Your task to perform on an android device: Open Yahoo.com Image 0: 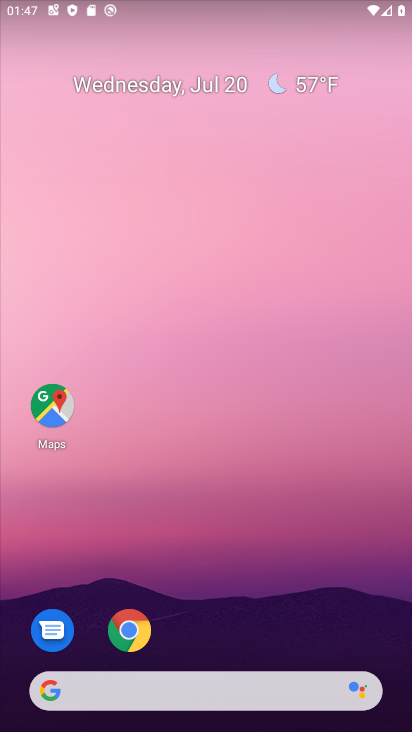
Step 0: click (132, 632)
Your task to perform on an android device: Open Yahoo.com Image 1: 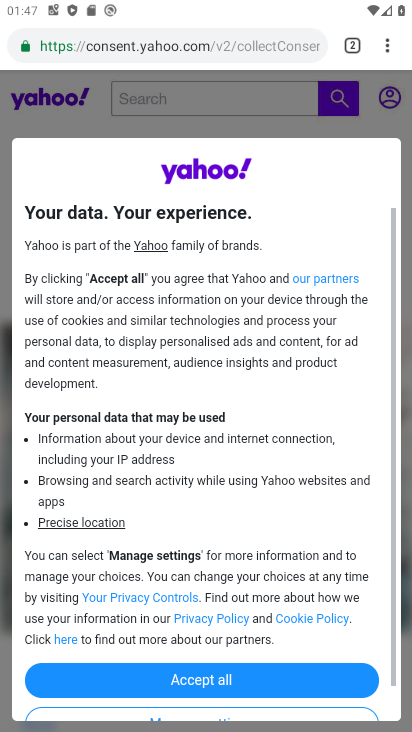
Step 1: task complete